Your task to perform on an android device: Empty the shopping cart on ebay.com. Search for "logitech g pro" on ebay.com, select the first entry, and add it to the cart. Image 0: 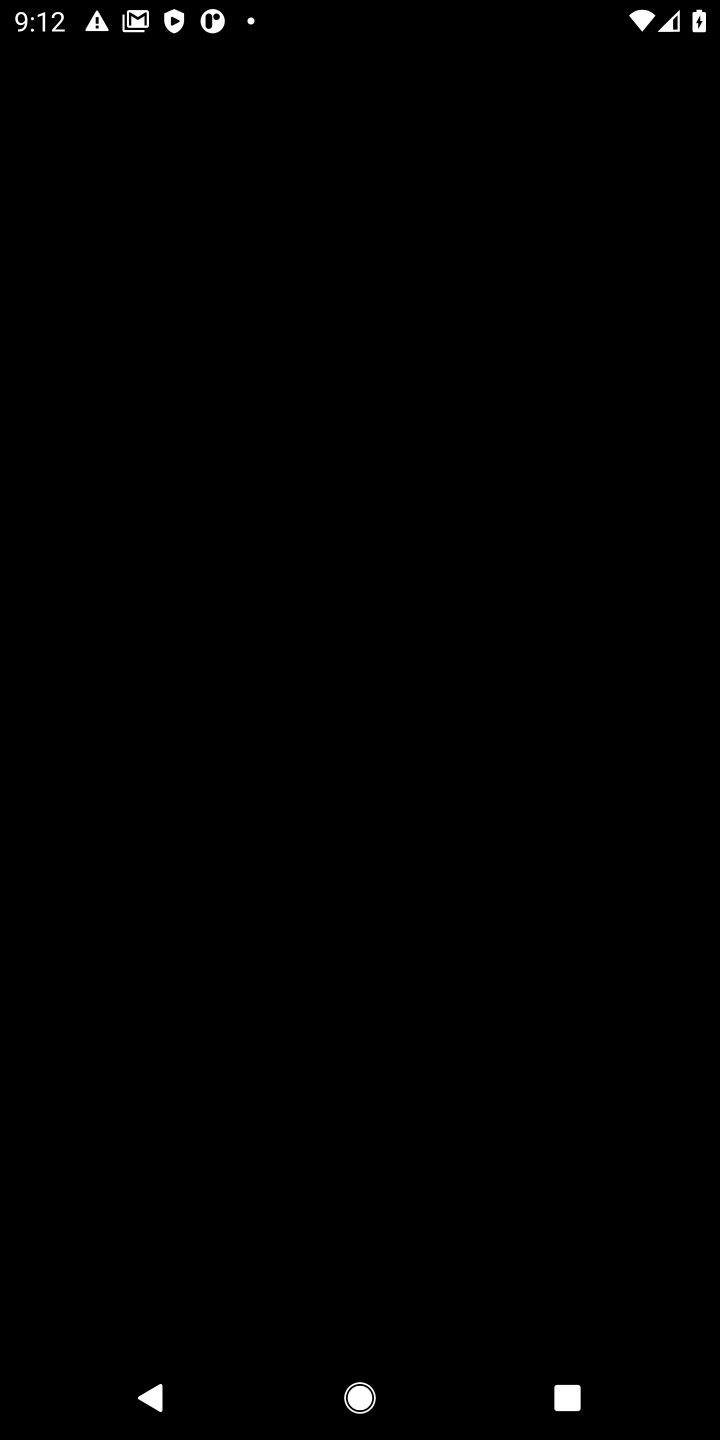
Step 0: press home button
Your task to perform on an android device: Empty the shopping cart on ebay.com. Search for "logitech g pro" on ebay.com, select the first entry, and add it to the cart. Image 1: 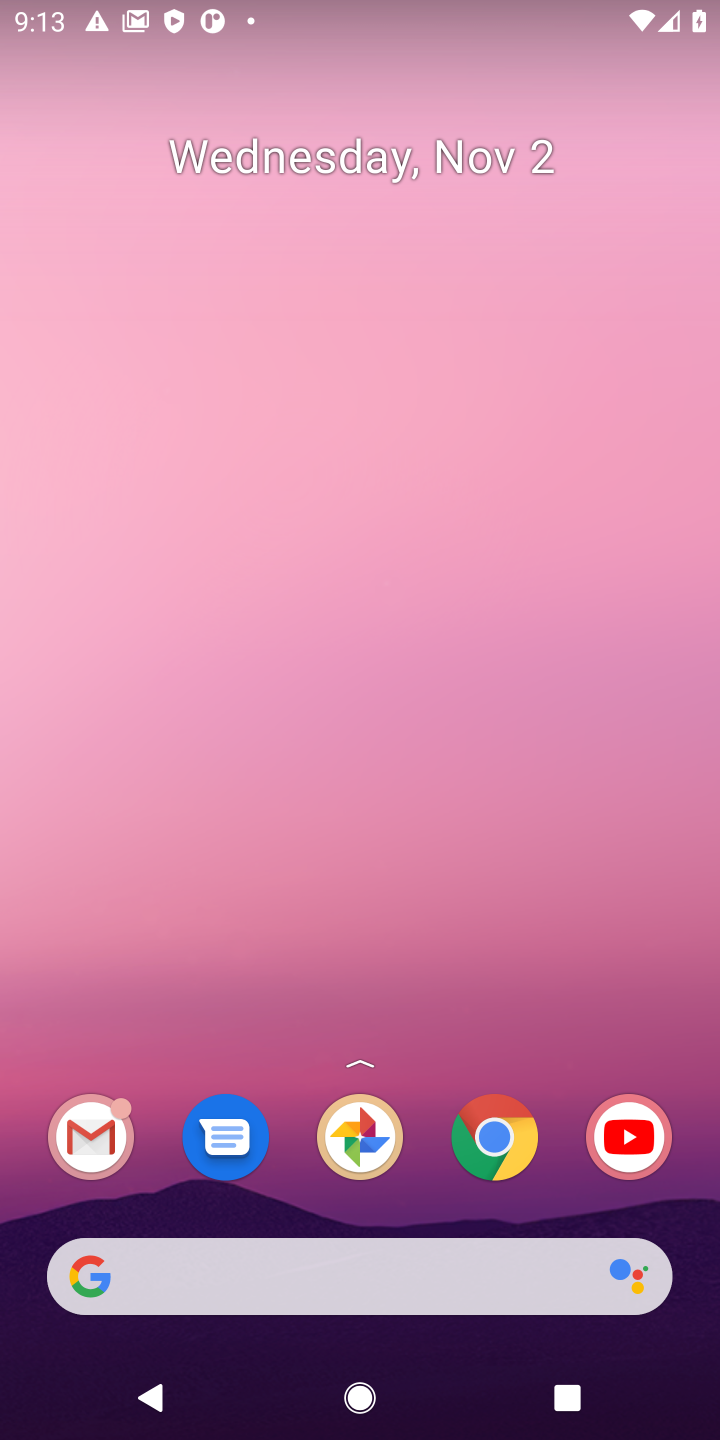
Step 1: click (497, 1142)
Your task to perform on an android device: Empty the shopping cart on ebay.com. Search for "logitech g pro" on ebay.com, select the first entry, and add it to the cart. Image 2: 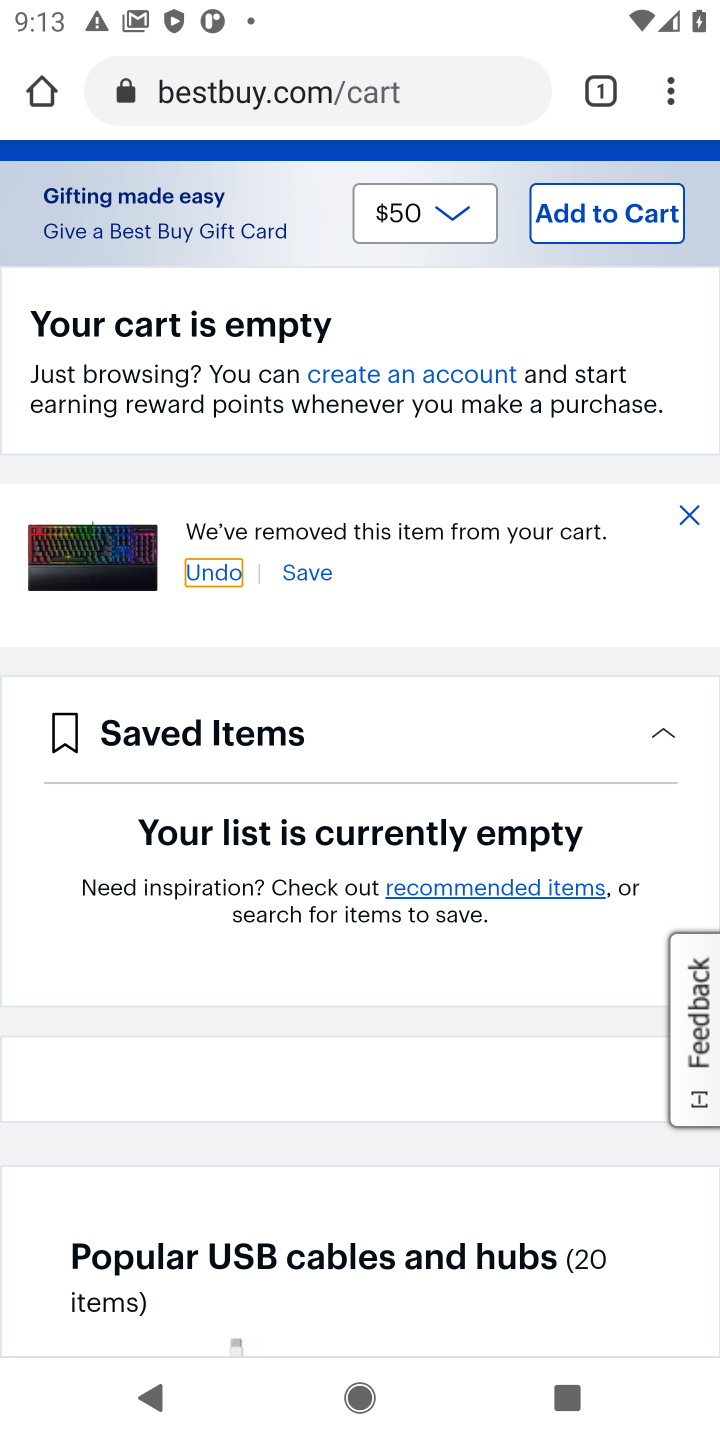
Step 2: click (422, 66)
Your task to perform on an android device: Empty the shopping cart on ebay.com. Search for "logitech g pro" on ebay.com, select the first entry, and add it to the cart. Image 3: 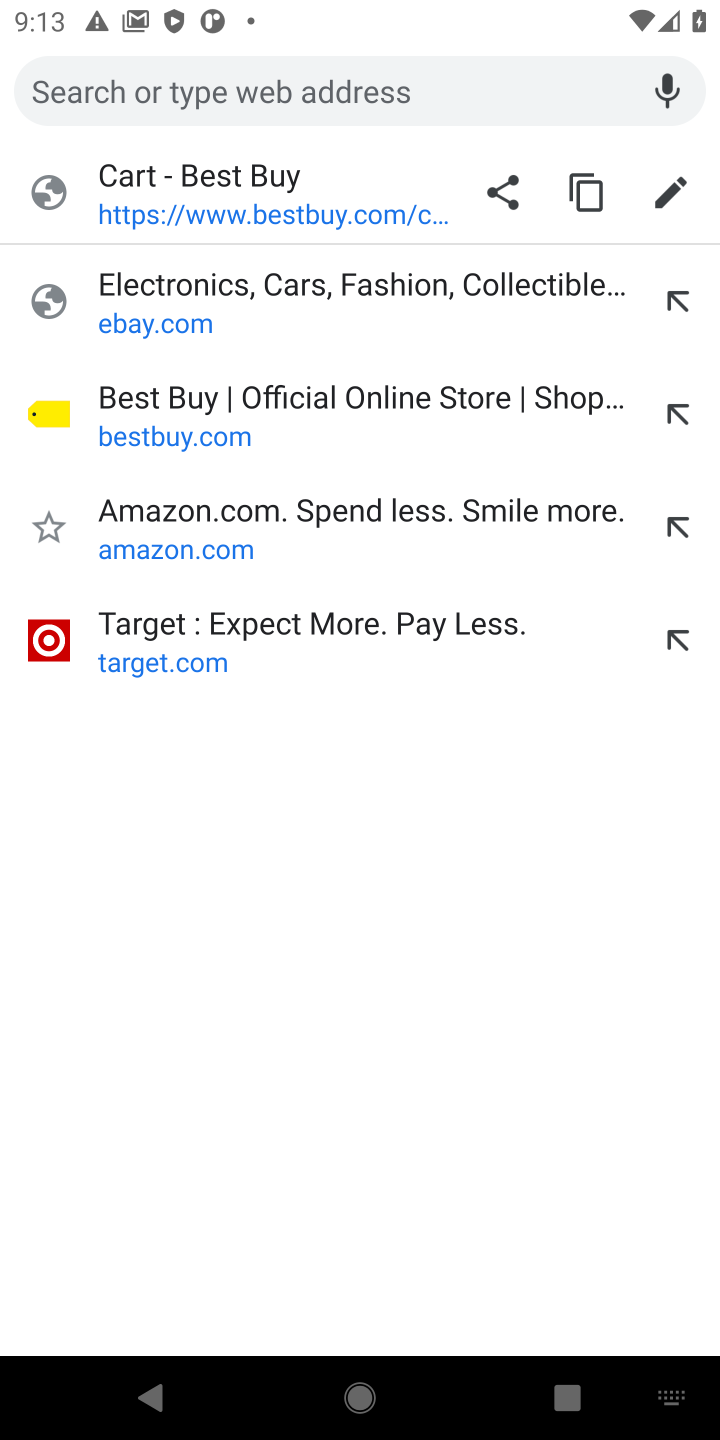
Step 3: type "ebay.com"
Your task to perform on an android device: Empty the shopping cart on ebay.com. Search for "logitech g pro" on ebay.com, select the first entry, and add it to the cart. Image 4: 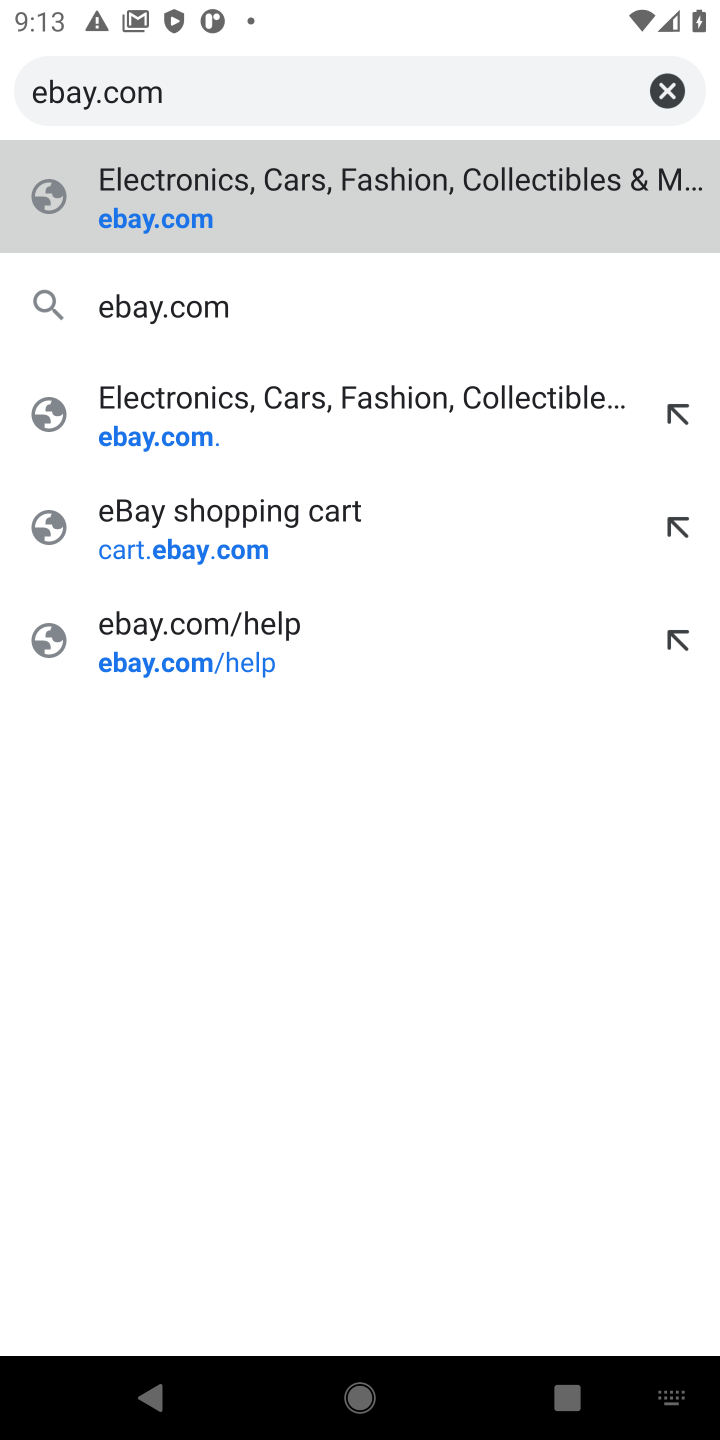
Step 4: click (195, 190)
Your task to perform on an android device: Empty the shopping cart on ebay.com. Search for "logitech g pro" on ebay.com, select the first entry, and add it to the cart. Image 5: 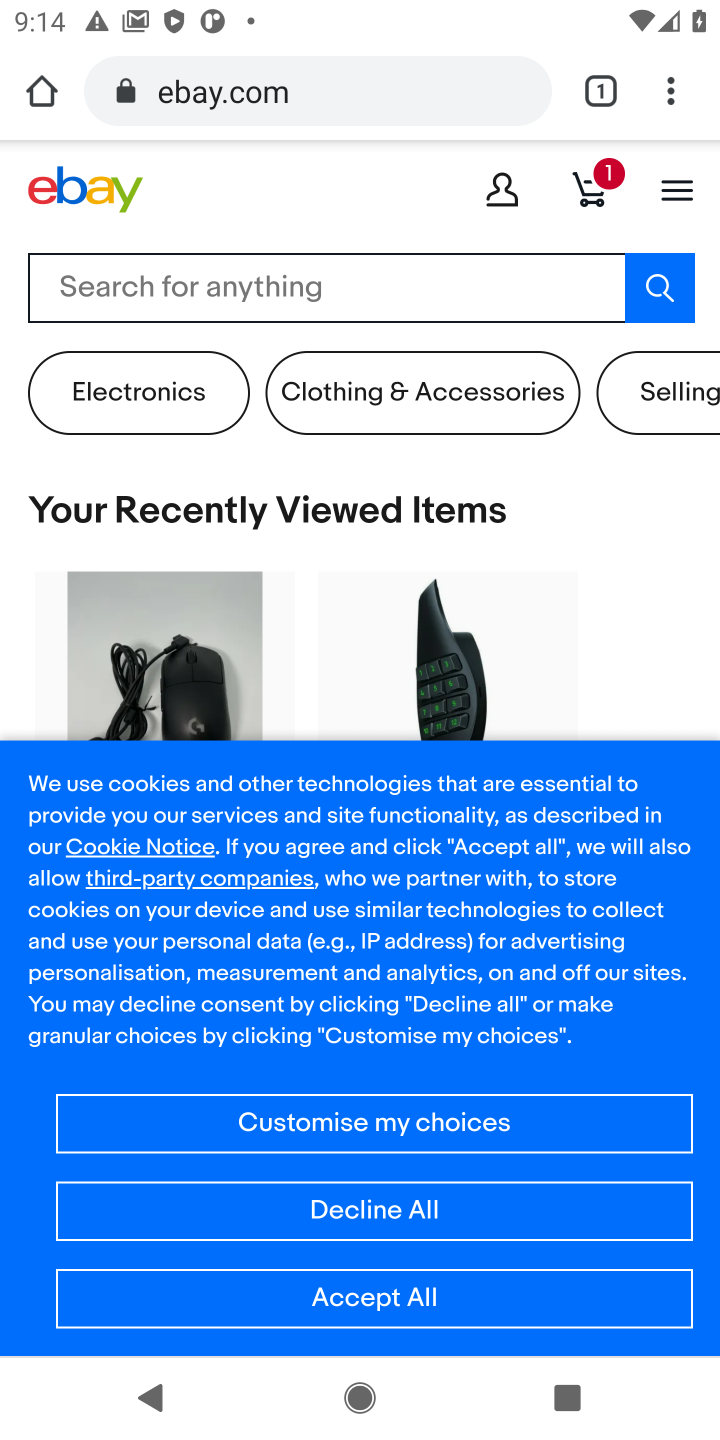
Step 5: click (422, 1304)
Your task to perform on an android device: Empty the shopping cart on ebay.com. Search for "logitech g pro" on ebay.com, select the first entry, and add it to the cart. Image 6: 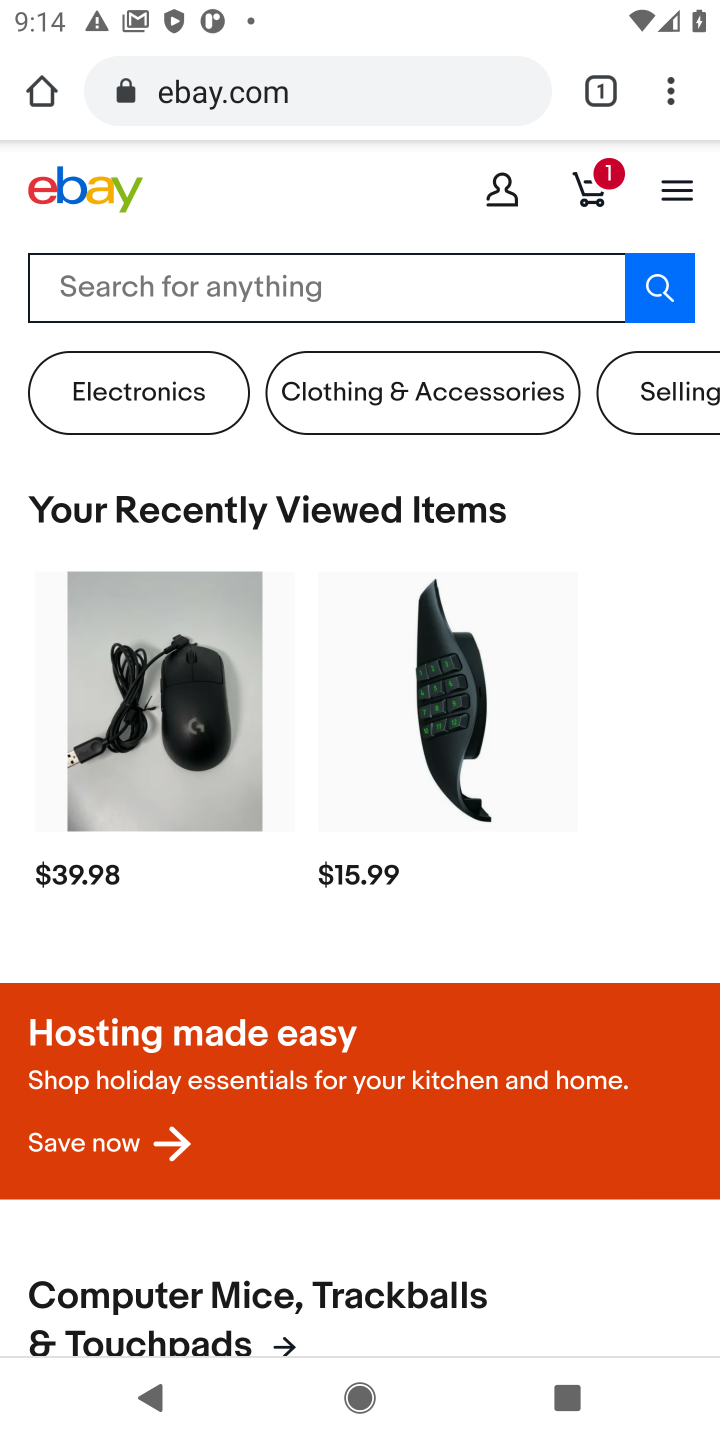
Step 6: click (592, 178)
Your task to perform on an android device: Empty the shopping cart on ebay.com. Search for "logitech g pro" on ebay.com, select the first entry, and add it to the cart. Image 7: 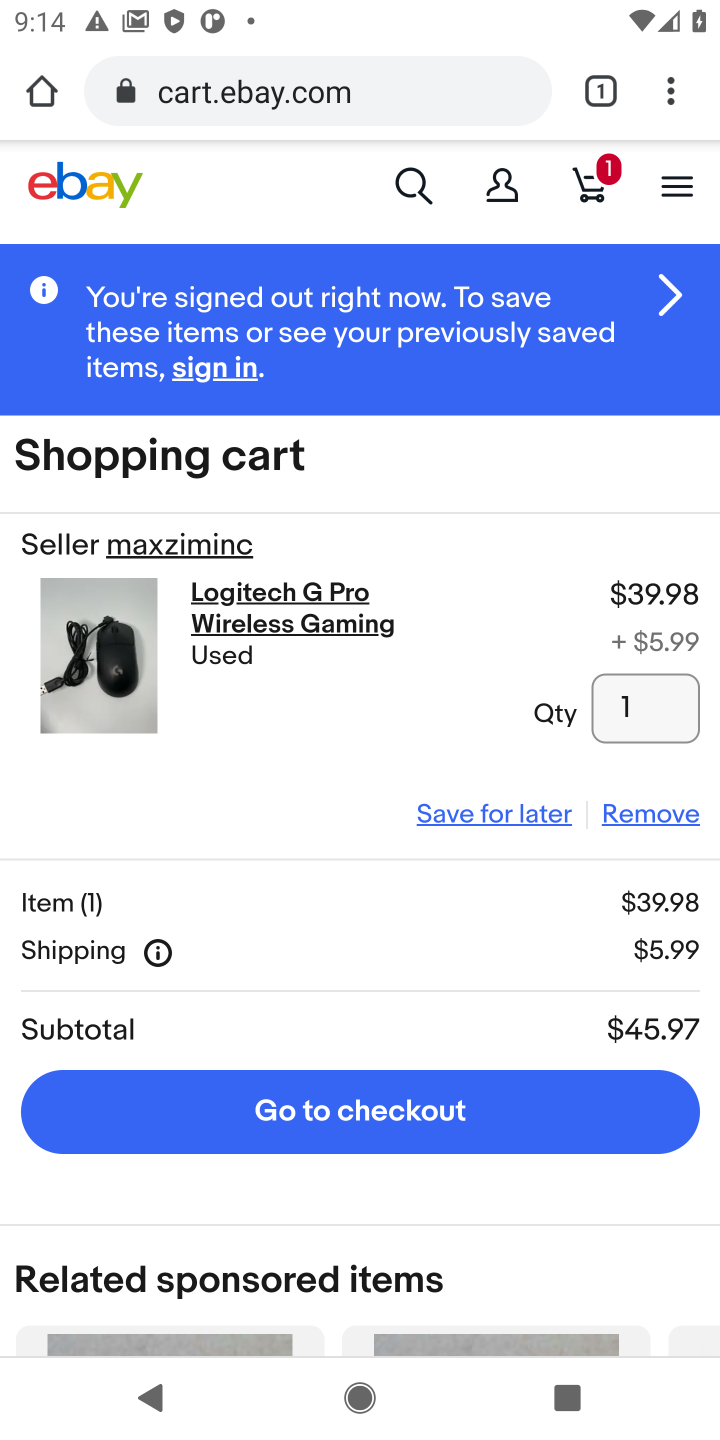
Step 7: click (654, 801)
Your task to perform on an android device: Empty the shopping cart on ebay.com. Search for "logitech g pro" on ebay.com, select the first entry, and add it to the cart. Image 8: 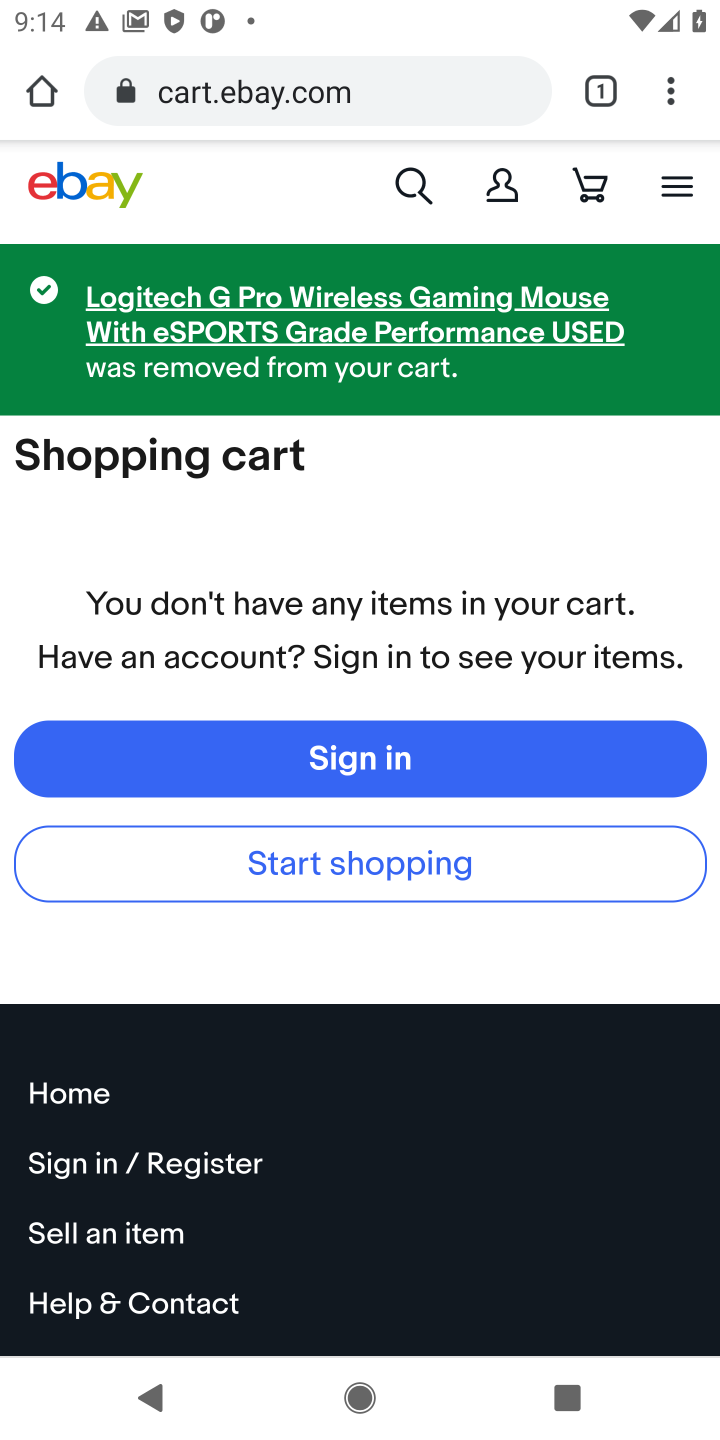
Step 8: click (400, 178)
Your task to perform on an android device: Empty the shopping cart on ebay.com. Search for "logitech g pro" on ebay.com, select the first entry, and add it to the cart. Image 9: 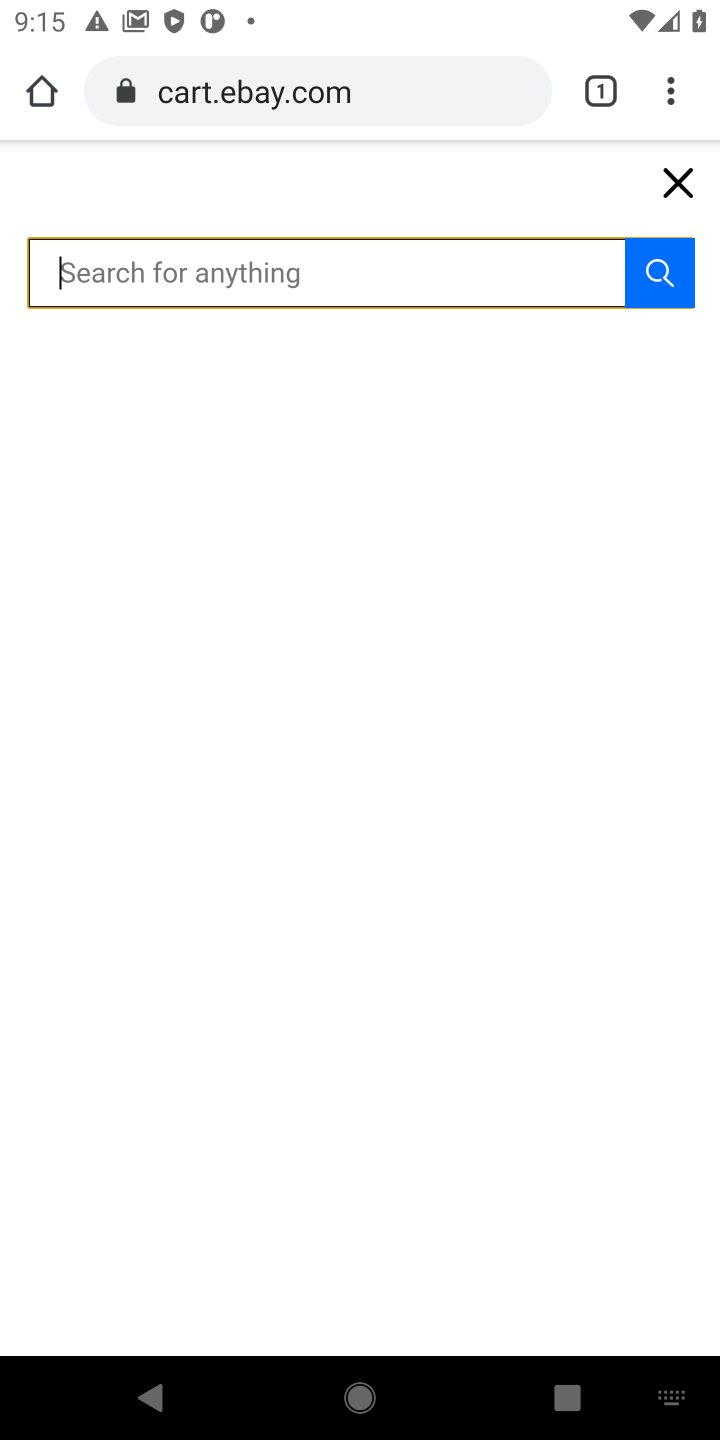
Step 9: type "logitech g pro"
Your task to perform on an android device: Empty the shopping cart on ebay.com. Search for "logitech g pro" on ebay.com, select the first entry, and add it to the cart. Image 10: 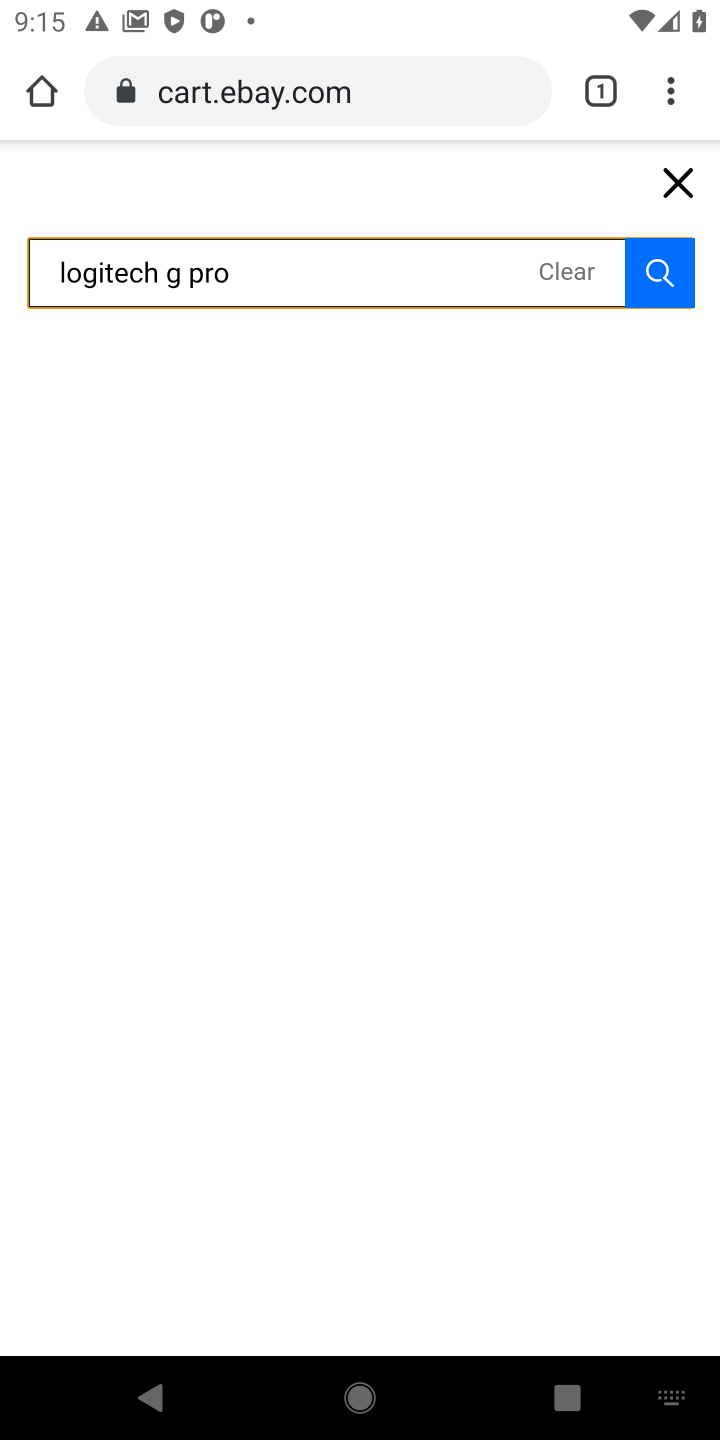
Step 10: click (658, 273)
Your task to perform on an android device: Empty the shopping cart on ebay.com. Search for "logitech g pro" on ebay.com, select the first entry, and add it to the cart. Image 11: 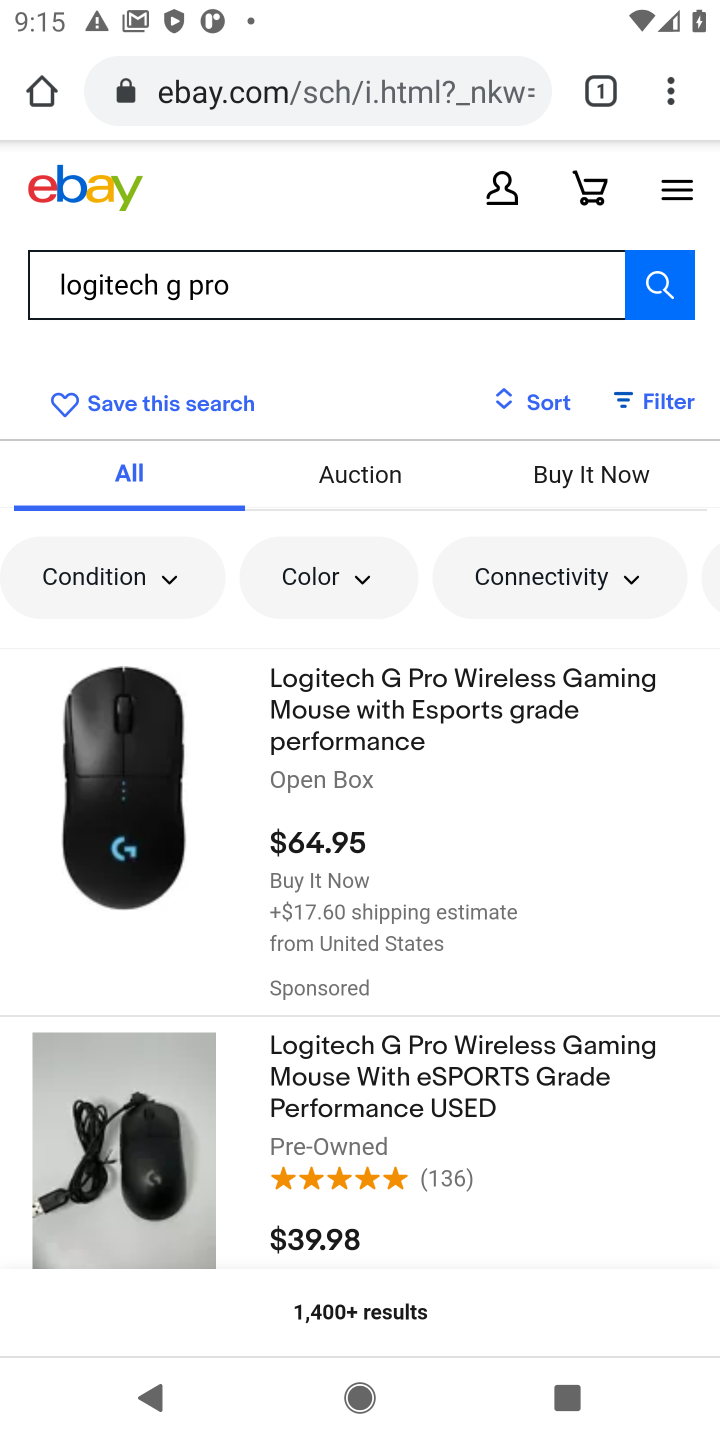
Step 11: click (323, 687)
Your task to perform on an android device: Empty the shopping cart on ebay.com. Search for "logitech g pro" on ebay.com, select the first entry, and add it to the cart. Image 12: 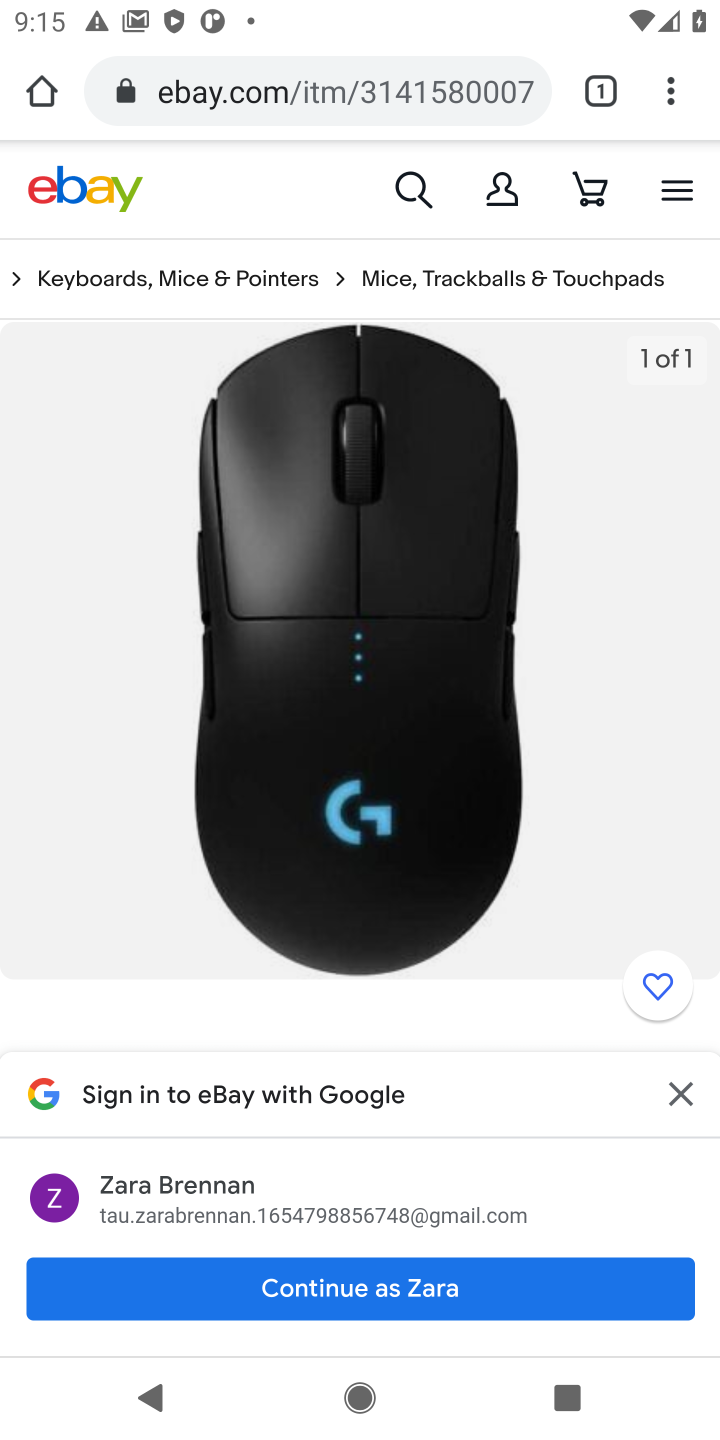
Step 12: click (378, 1286)
Your task to perform on an android device: Empty the shopping cart on ebay.com. Search for "logitech g pro" on ebay.com, select the first entry, and add it to the cart. Image 13: 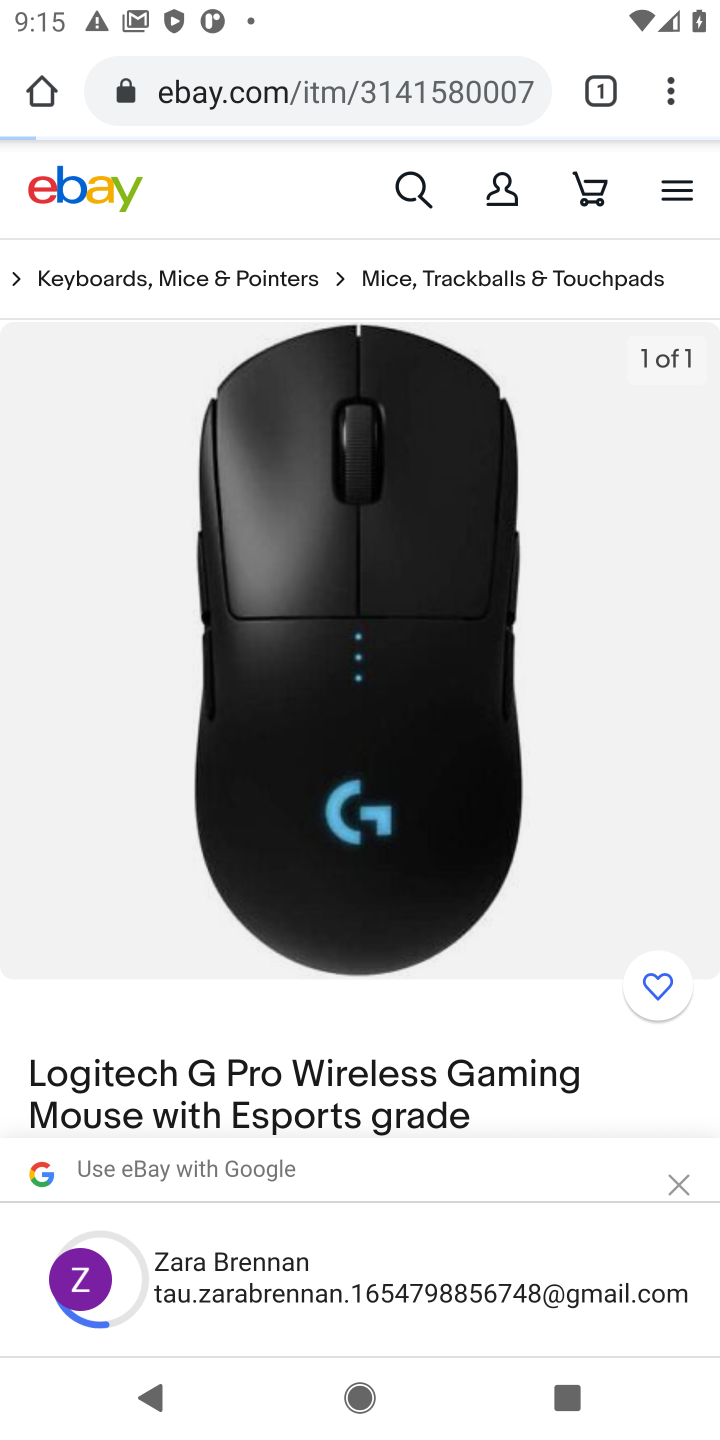
Step 13: drag from (464, 1046) to (541, 393)
Your task to perform on an android device: Empty the shopping cart on ebay.com. Search for "logitech g pro" on ebay.com, select the first entry, and add it to the cart. Image 14: 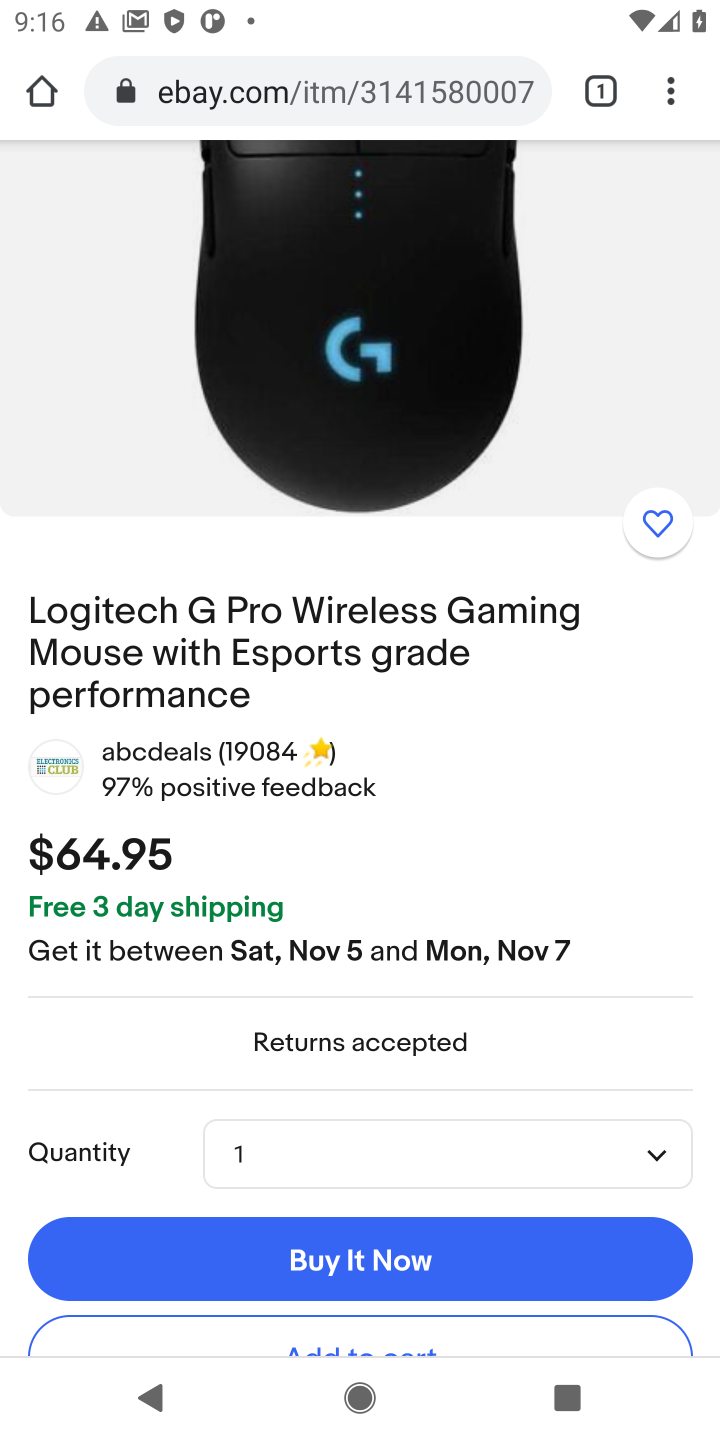
Step 14: drag from (424, 1111) to (429, 649)
Your task to perform on an android device: Empty the shopping cart on ebay.com. Search for "logitech g pro" on ebay.com, select the first entry, and add it to the cart. Image 15: 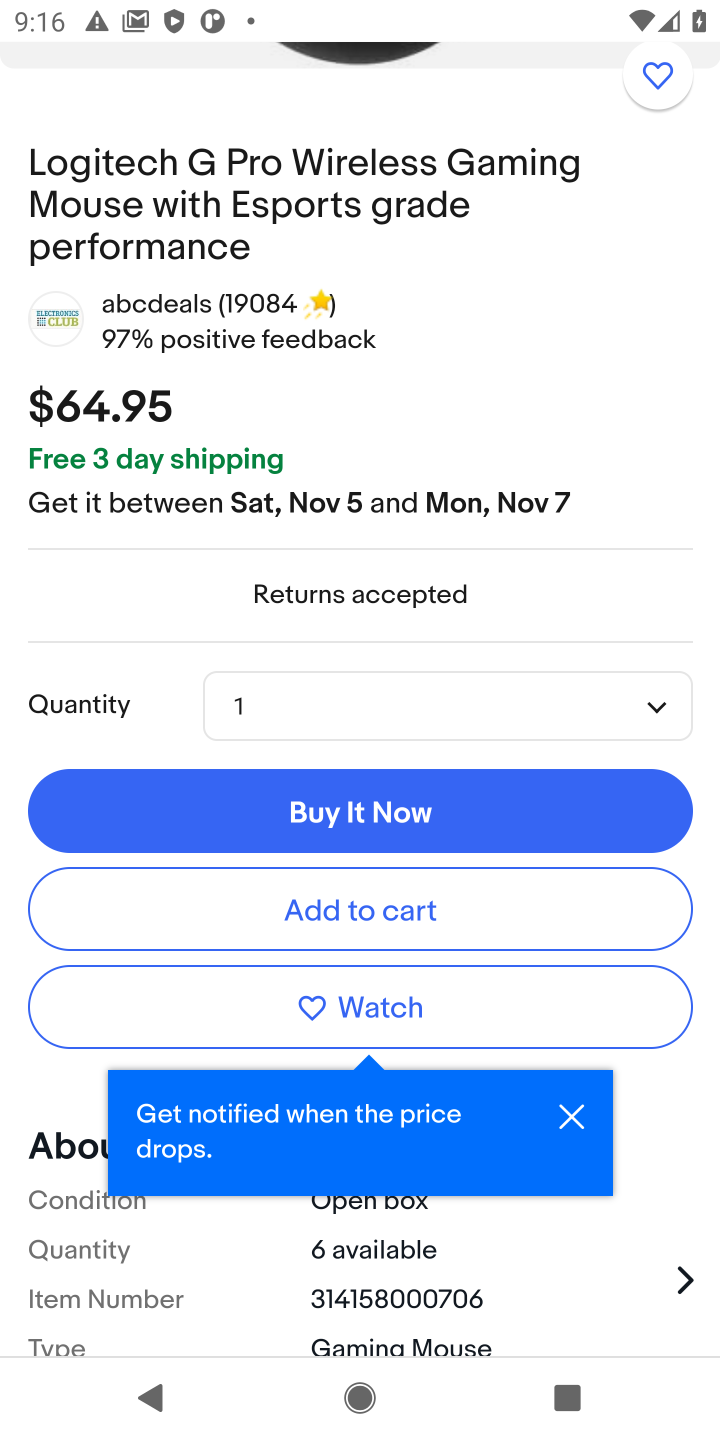
Step 15: click (367, 904)
Your task to perform on an android device: Empty the shopping cart on ebay.com. Search for "logitech g pro" on ebay.com, select the first entry, and add it to the cart. Image 16: 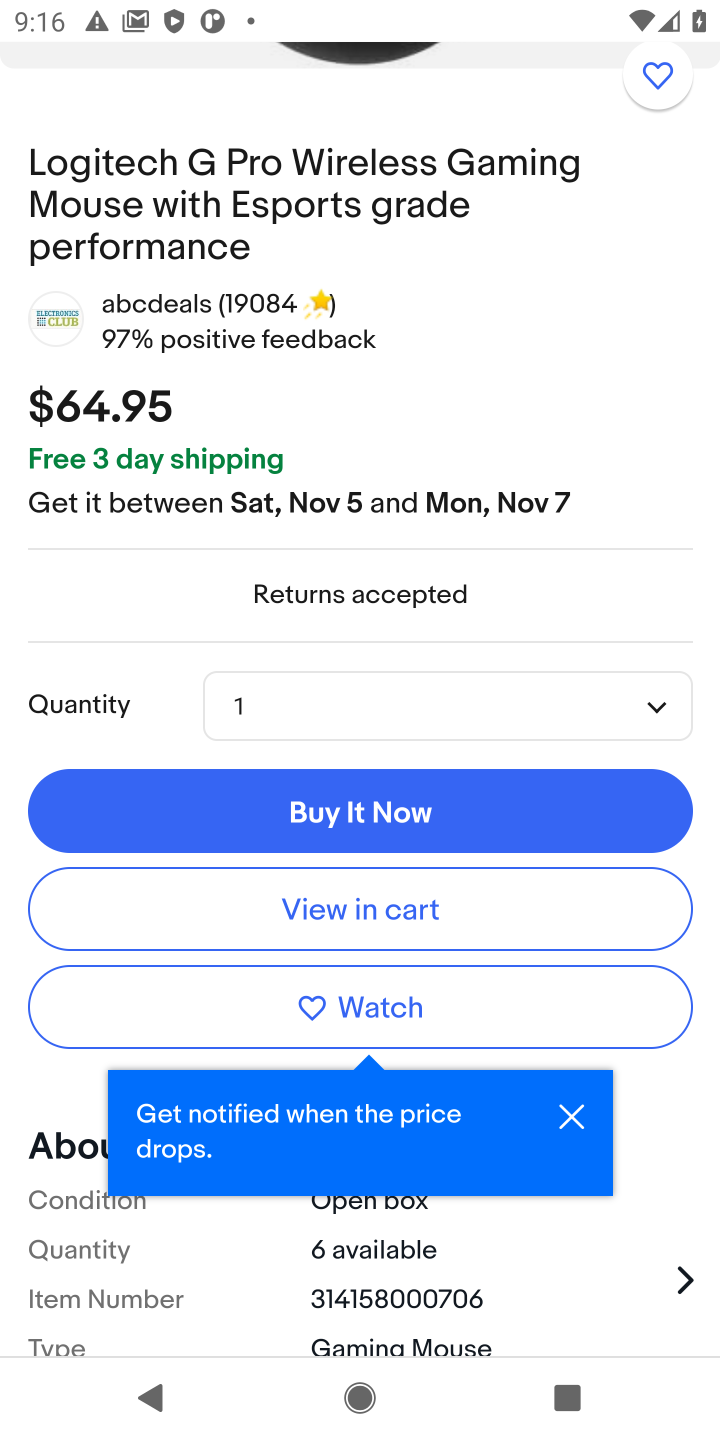
Step 16: task complete